Your task to perform on an android device: Show me popular games on the Play Store Image 0: 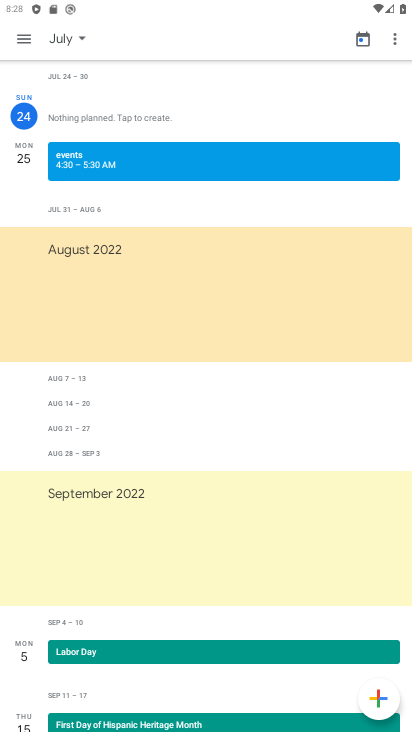
Step 0: press back button
Your task to perform on an android device: Show me popular games on the Play Store Image 1: 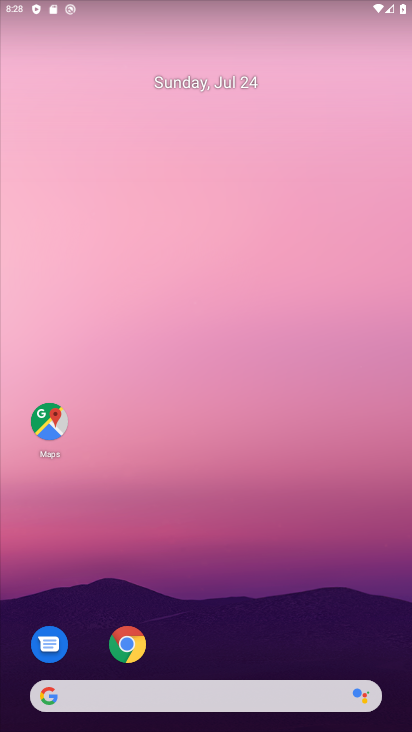
Step 1: drag from (181, 673) to (205, 282)
Your task to perform on an android device: Show me popular games on the Play Store Image 2: 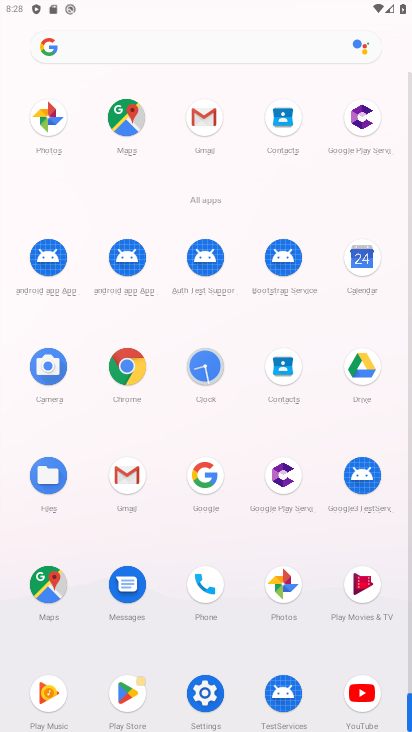
Step 2: click (164, 127)
Your task to perform on an android device: Show me popular games on the Play Store Image 3: 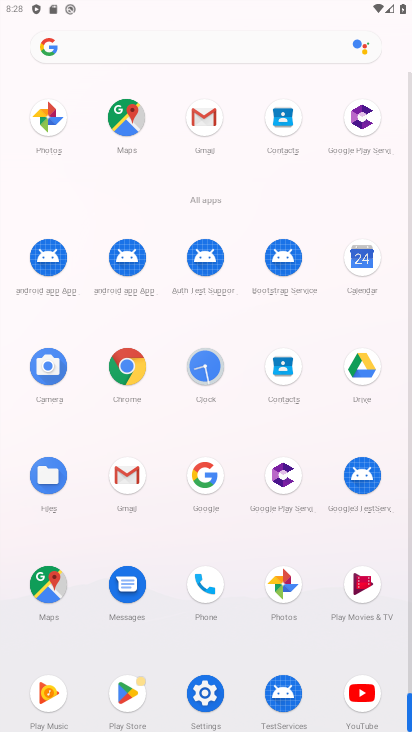
Step 3: drag from (165, 451) to (164, 195)
Your task to perform on an android device: Show me popular games on the Play Store Image 4: 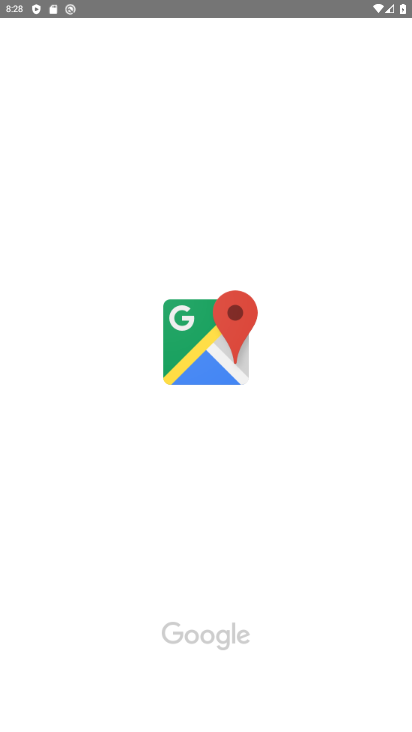
Step 4: press back button
Your task to perform on an android device: Show me popular games on the Play Store Image 5: 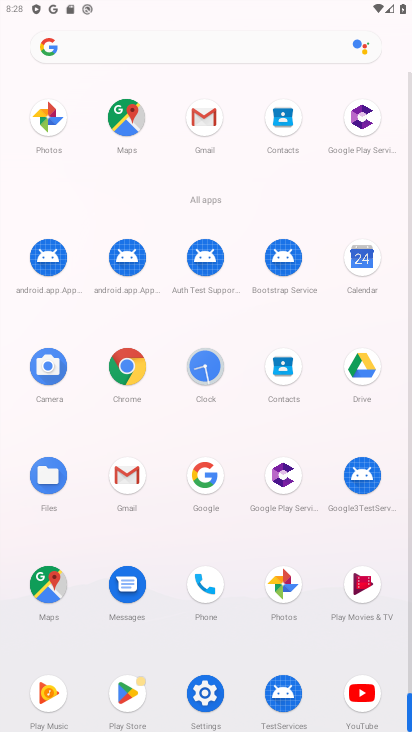
Step 5: press back button
Your task to perform on an android device: Show me popular games on the Play Store Image 6: 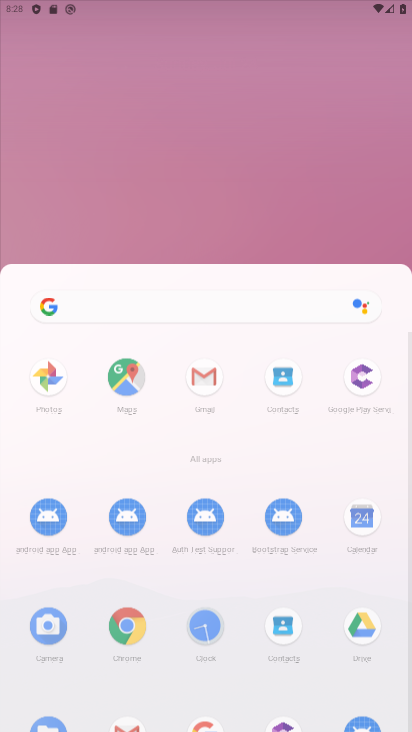
Step 6: press back button
Your task to perform on an android device: Show me popular games on the Play Store Image 7: 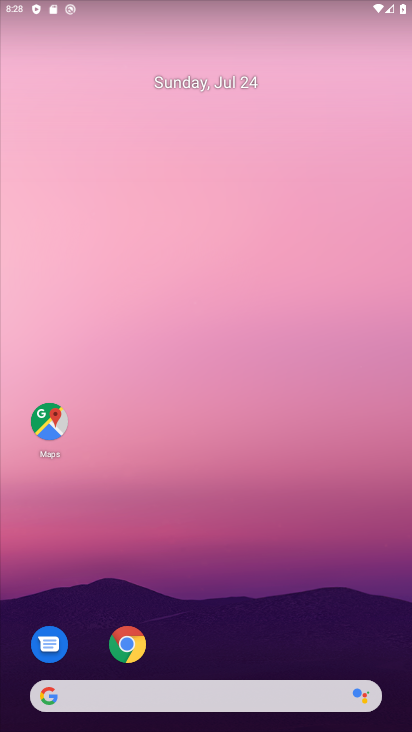
Step 7: drag from (235, 640) to (285, 47)
Your task to perform on an android device: Show me popular games on the Play Store Image 8: 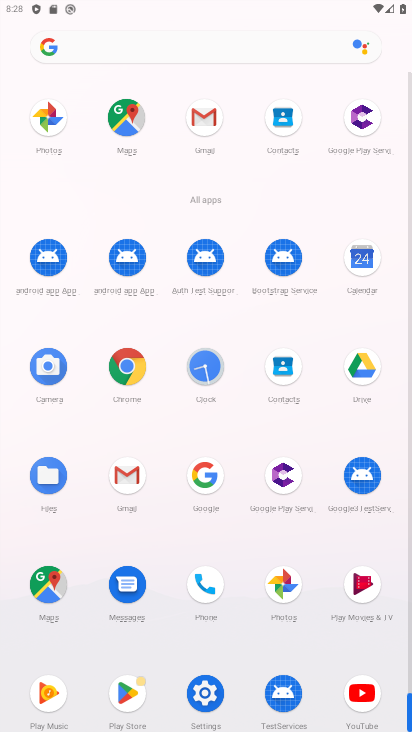
Step 8: drag from (86, 548) to (76, 213)
Your task to perform on an android device: Show me popular games on the Play Store Image 9: 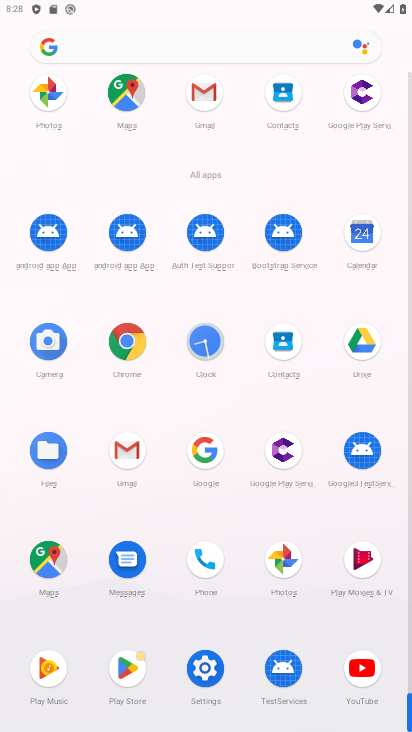
Step 9: click (118, 651)
Your task to perform on an android device: Show me popular games on the Play Store Image 10: 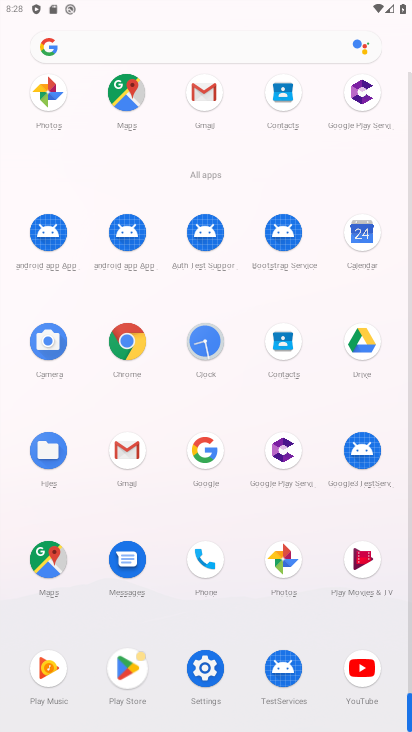
Step 10: click (118, 651)
Your task to perform on an android device: Show me popular games on the Play Store Image 11: 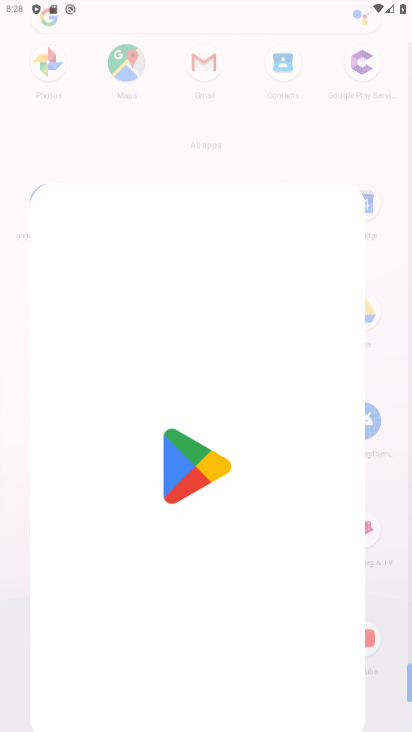
Step 11: click (118, 653)
Your task to perform on an android device: Show me popular games on the Play Store Image 12: 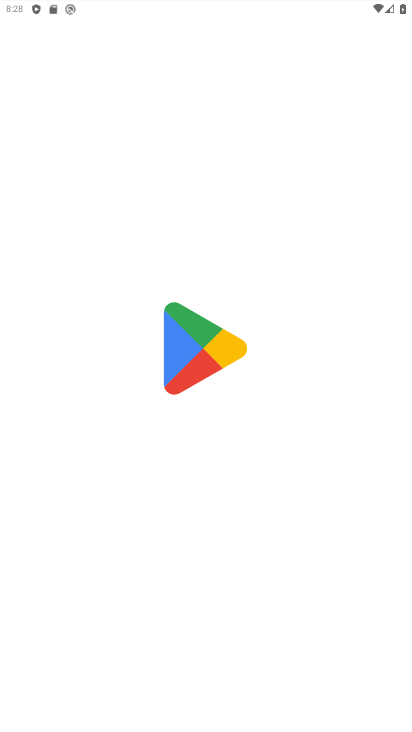
Step 12: click (117, 654)
Your task to perform on an android device: Show me popular games on the Play Store Image 13: 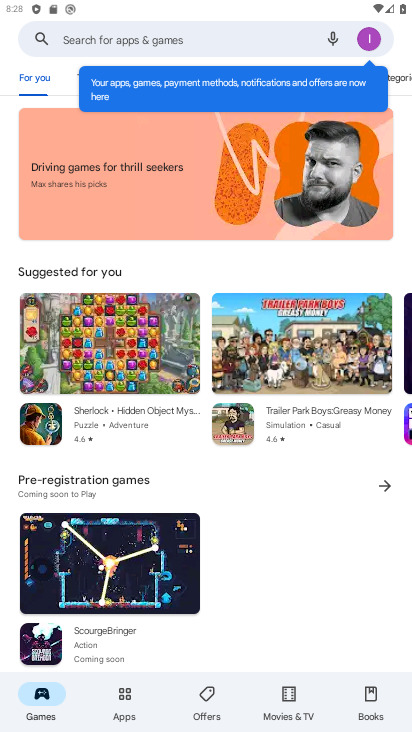
Step 13: click (99, 54)
Your task to perform on an android device: Show me popular games on the Play Store Image 14: 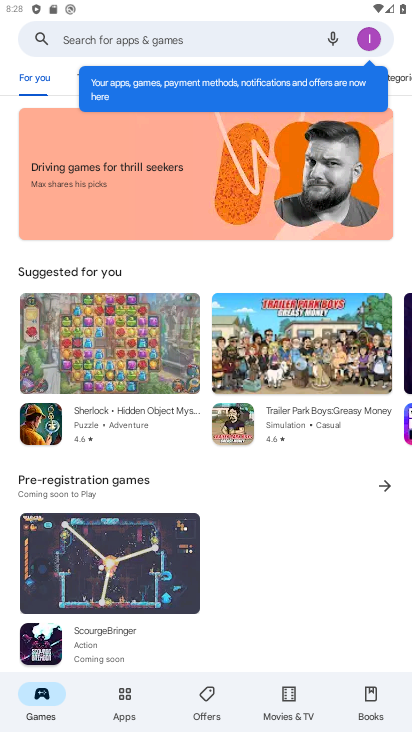
Step 14: click (103, 38)
Your task to perform on an android device: Show me popular games on the Play Store Image 15: 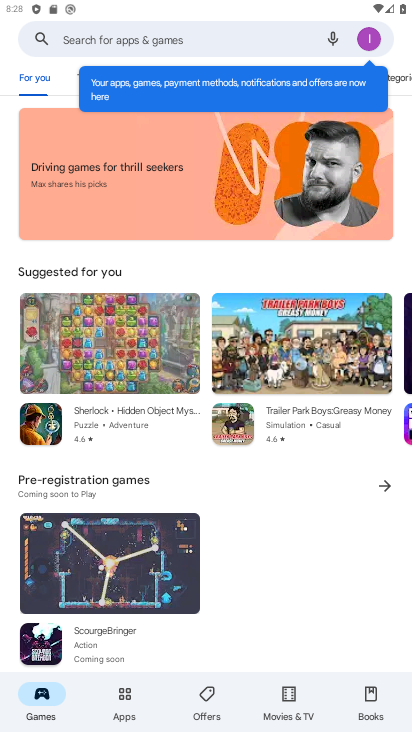
Step 15: click (105, 38)
Your task to perform on an android device: Show me popular games on the Play Store Image 16: 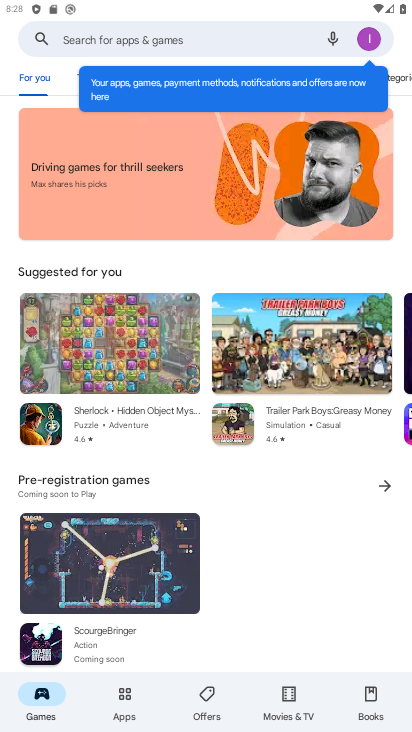
Step 16: click (105, 38)
Your task to perform on an android device: Show me popular games on the Play Store Image 17: 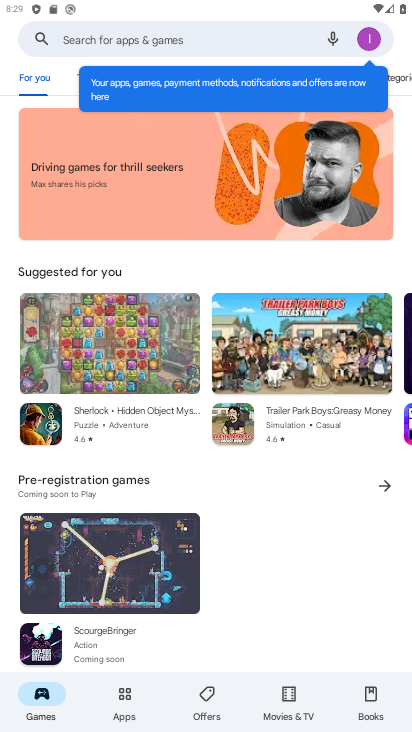
Step 17: click (104, 35)
Your task to perform on an android device: Show me popular games on the Play Store Image 18: 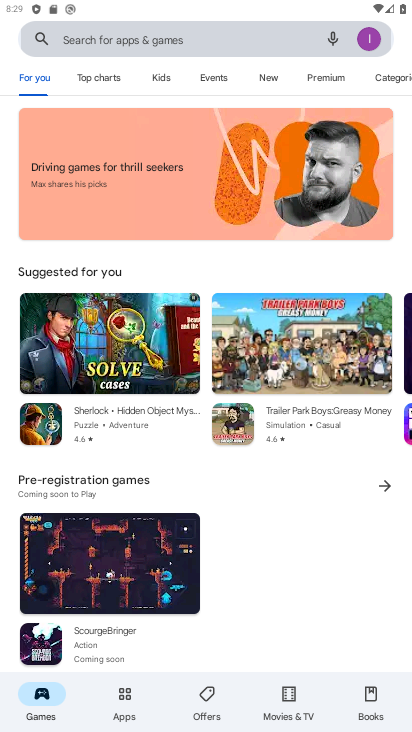
Step 18: click (109, 37)
Your task to perform on an android device: Show me popular games on the Play Store Image 19: 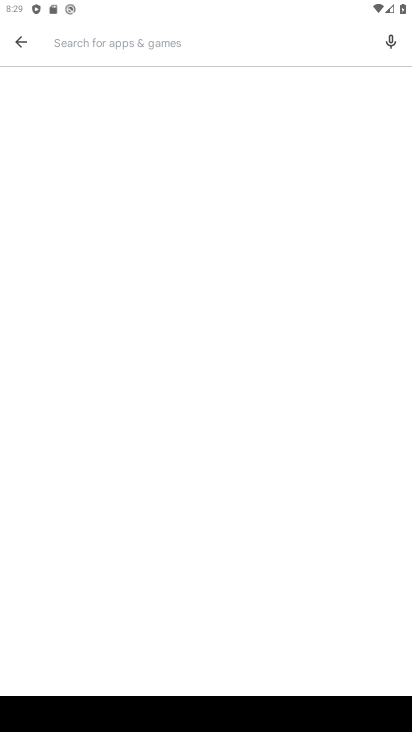
Step 19: click (109, 37)
Your task to perform on an android device: Show me popular games on the Play Store Image 20: 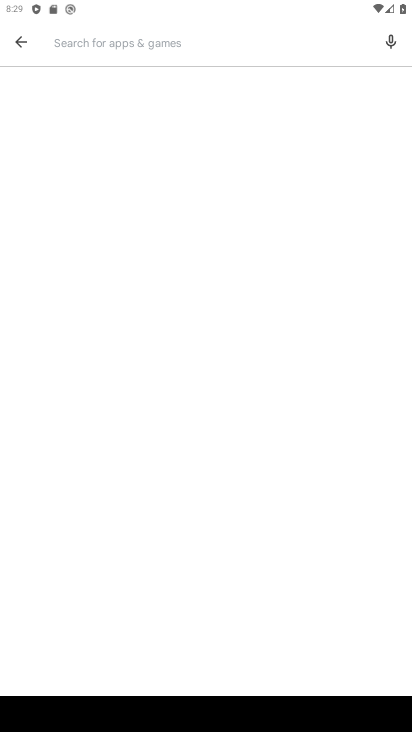
Step 20: click (109, 37)
Your task to perform on an android device: Show me popular games on the Play Store Image 21: 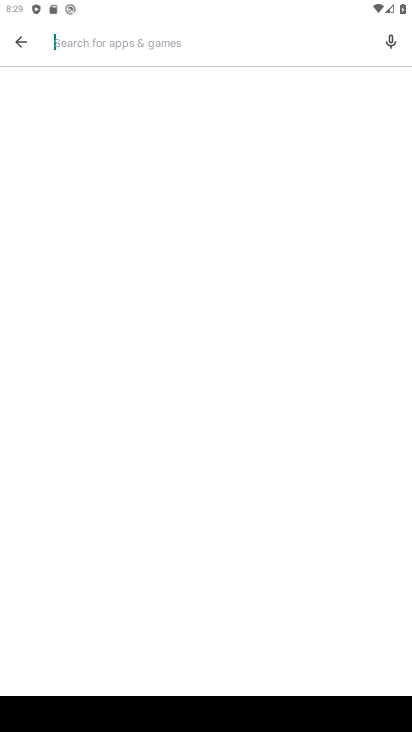
Step 21: type "popular games"
Your task to perform on an android device: Show me popular games on the Play Store Image 22: 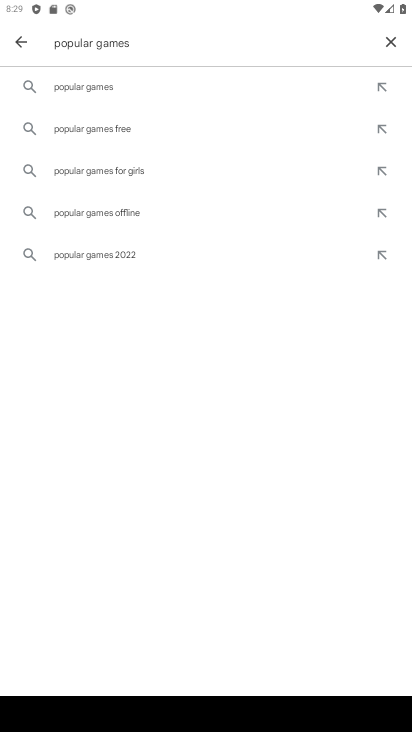
Step 22: click (97, 87)
Your task to perform on an android device: Show me popular games on the Play Store Image 23: 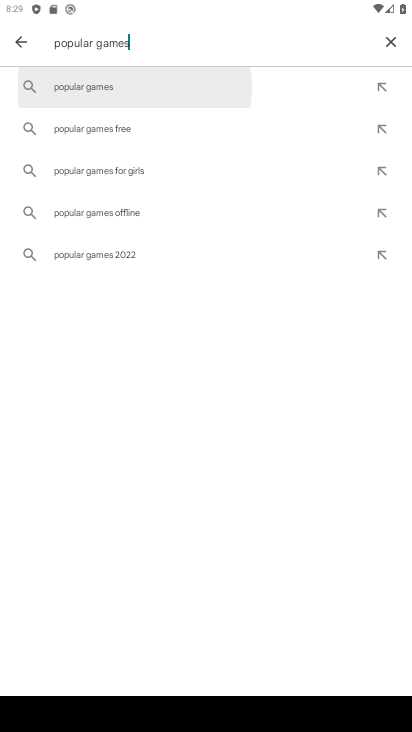
Step 23: click (97, 83)
Your task to perform on an android device: Show me popular games on the Play Store Image 24: 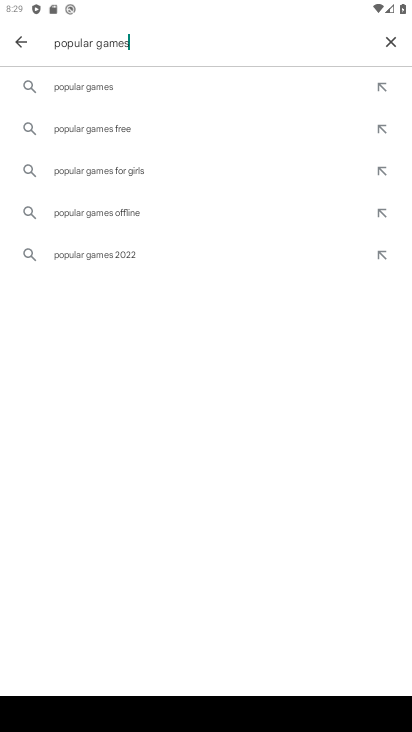
Step 24: click (97, 83)
Your task to perform on an android device: Show me popular games on the Play Store Image 25: 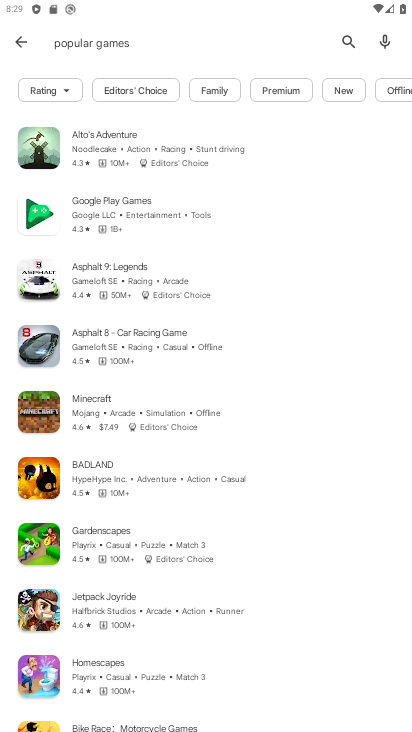
Step 25: drag from (217, 277) to (226, 166)
Your task to perform on an android device: Show me popular games on the Play Store Image 26: 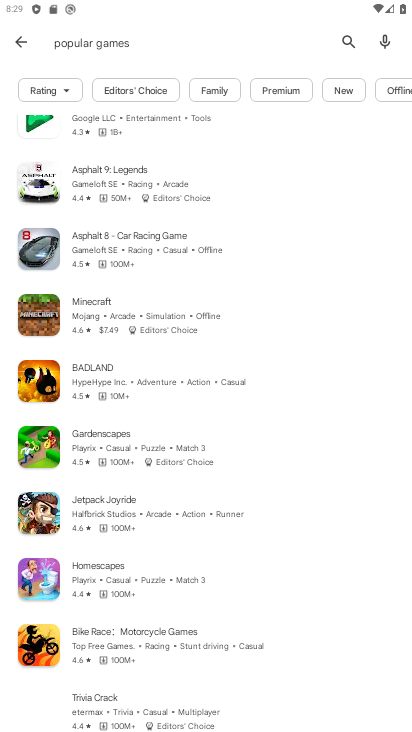
Step 26: drag from (184, 603) to (192, 231)
Your task to perform on an android device: Show me popular games on the Play Store Image 27: 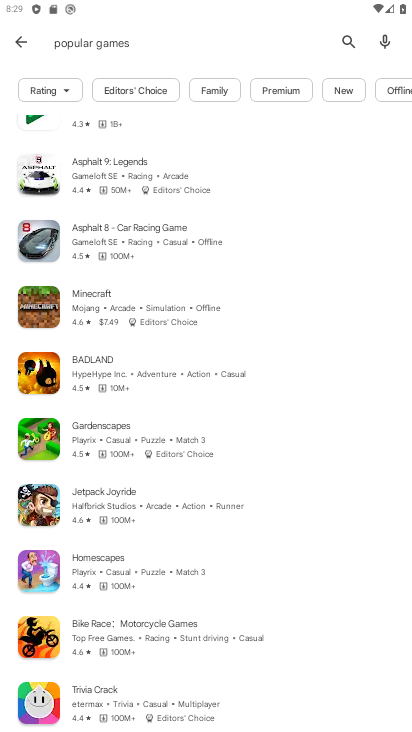
Step 27: drag from (214, 294) to (256, 74)
Your task to perform on an android device: Show me popular games on the Play Store Image 28: 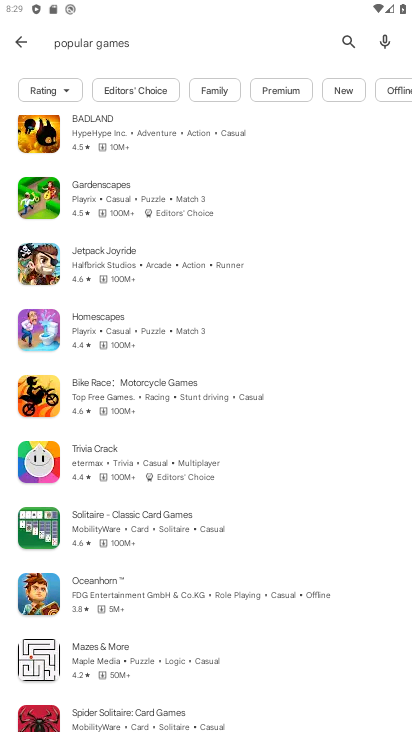
Step 28: press back button
Your task to perform on an android device: Show me popular games on the Play Store Image 29: 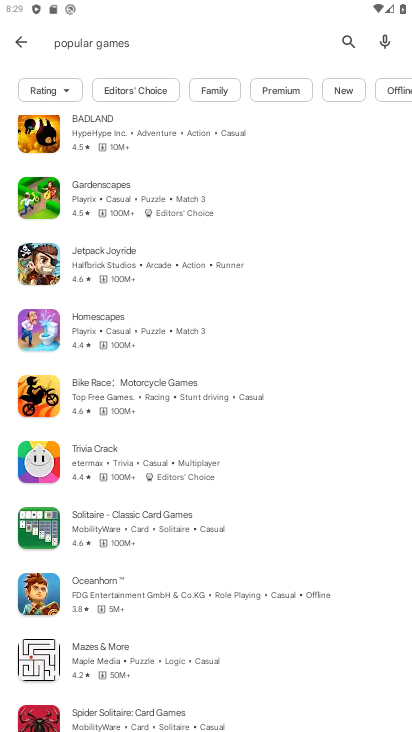
Step 29: press back button
Your task to perform on an android device: Show me popular games on the Play Store Image 30: 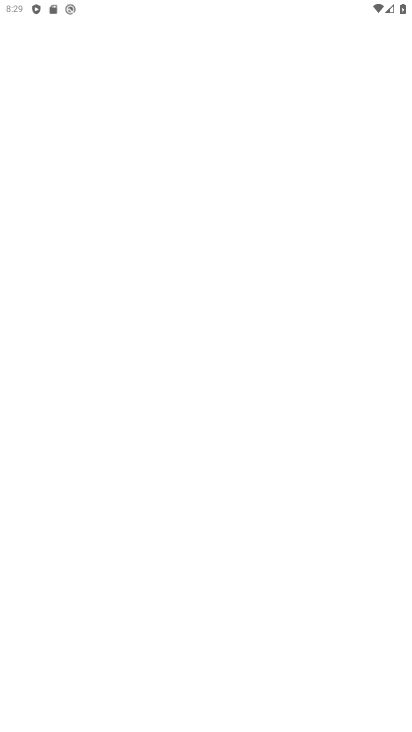
Step 30: press back button
Your task to perform on an android device: Show me popular games on the Play Store Image 31: 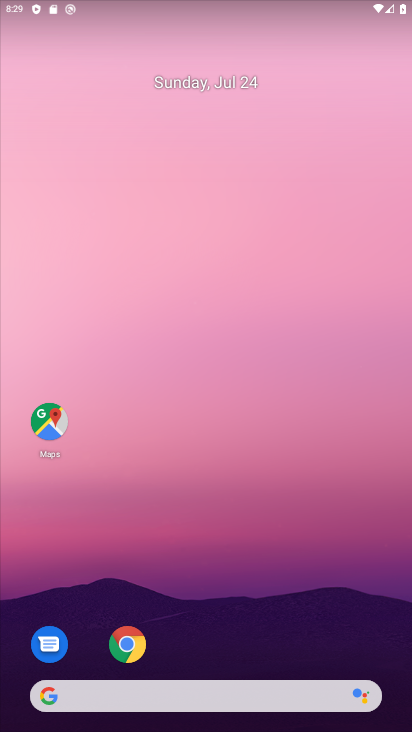
Step 31: drag from (211, 583) to (221, 82)
Your task to perform on an android device: Show me popular games on the Play Store Image 32: 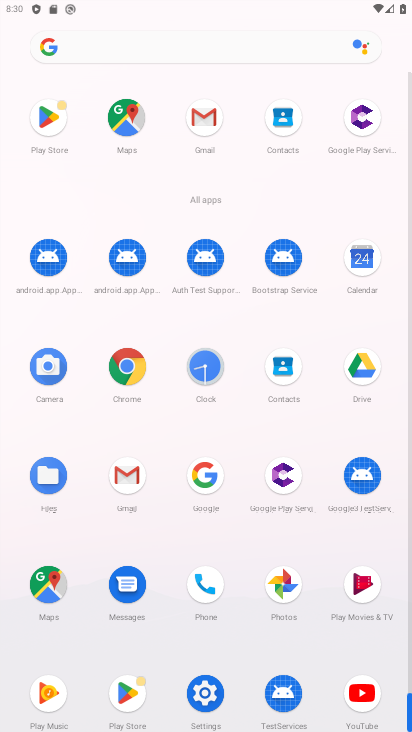
Step 32: click (126, 684)
Your task to perform on an android device: Show me popular games on the Play Store Image 33: 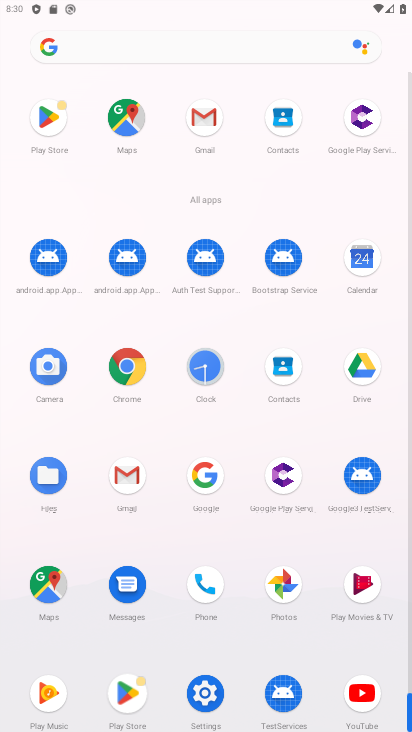
Step 33: click (123, 686)
Your task to perform on an android device: Show me popular games on the Play Store Image 34: 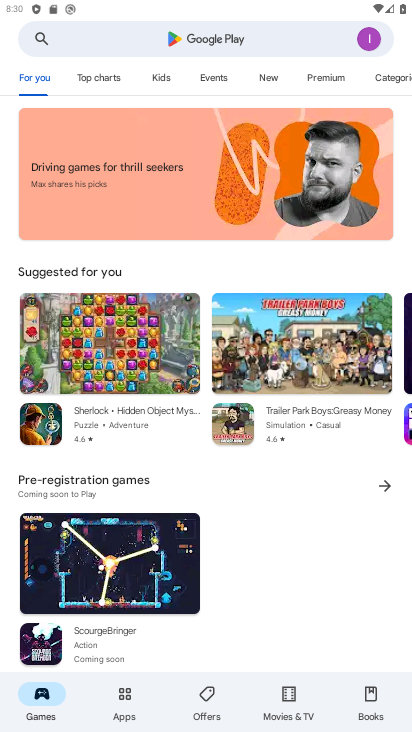
Step 34: click (280, 31)
Your task to perform on an android device: Show me popular games on the Play Store Image 35: 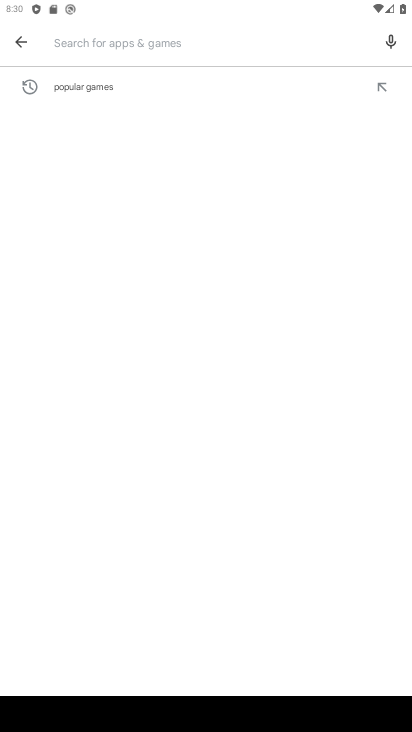
Step 35: click (127, 87)
Your task to perform on an android device: Show me popular games on the Play Store Image 36: 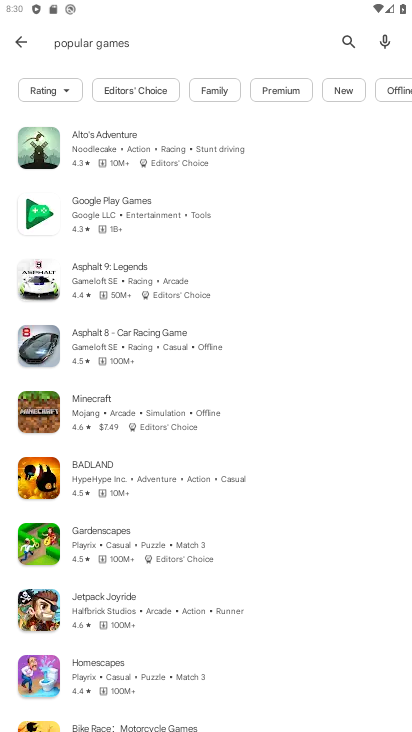
Step 36: task complete